Your task to perform on an android device: Go to Maps Image 0: 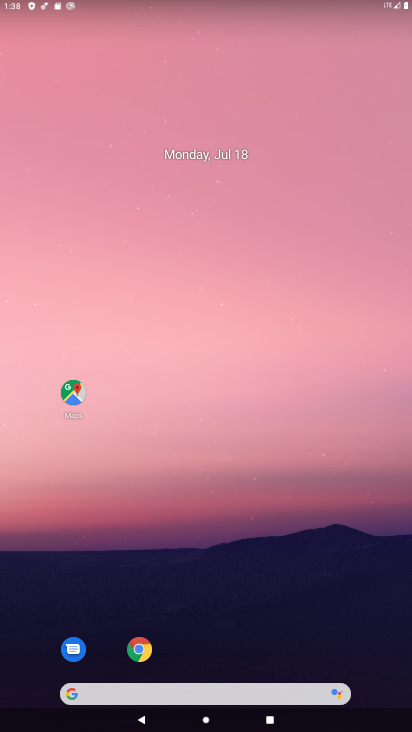
Step 0: click (74, 402)
Your task to perform on an android device: Go to Maps Image 1: 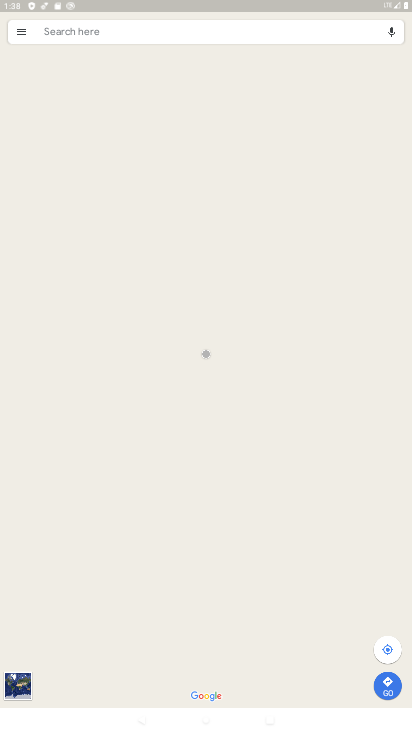
Step 1: task complete